Your task to perform on an android device: turn on javascript in the chrome app Image 0: 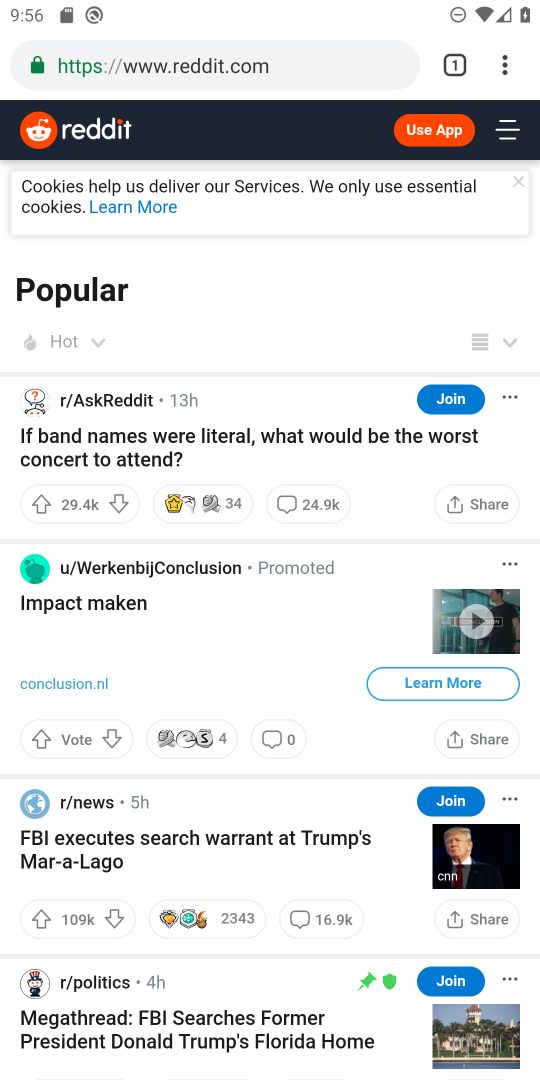
Step 0: press home button
Your task to perform on an android device: turn on javascript in the chrome app Image 1: 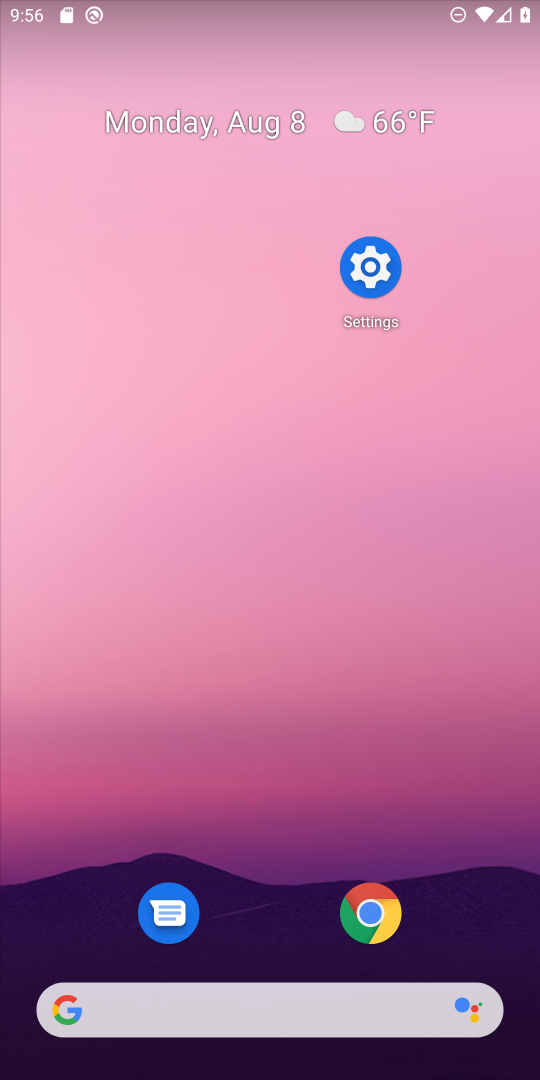
Step 1: click (369, 917)
Your task to perform on an android device: turn on javascript in the chrome app Image 2: 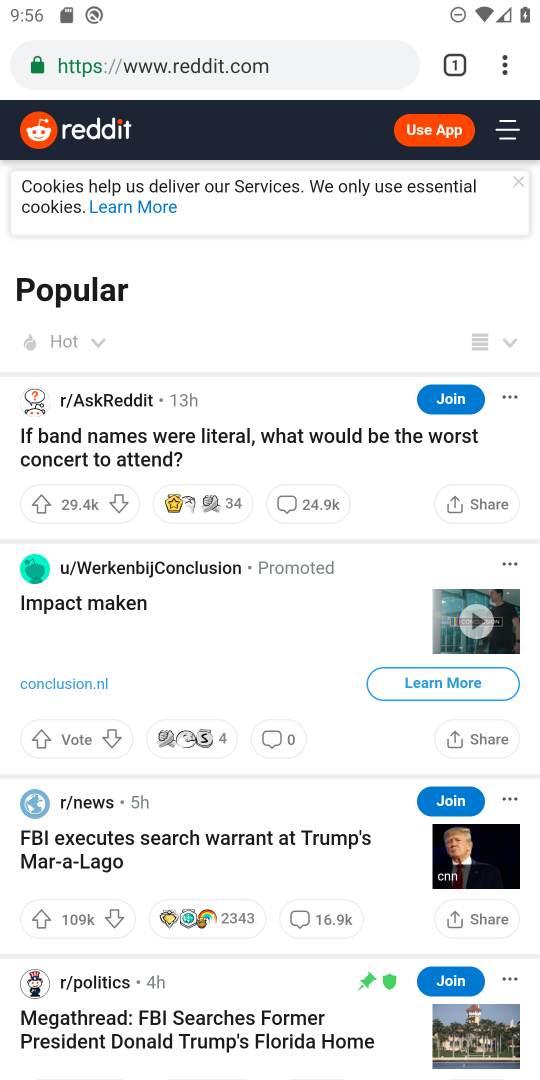
Step 2: drag from (506, 67) to (297, 863)
Your task to perform on an android device: turn on javascript in the chrome app Image 3: 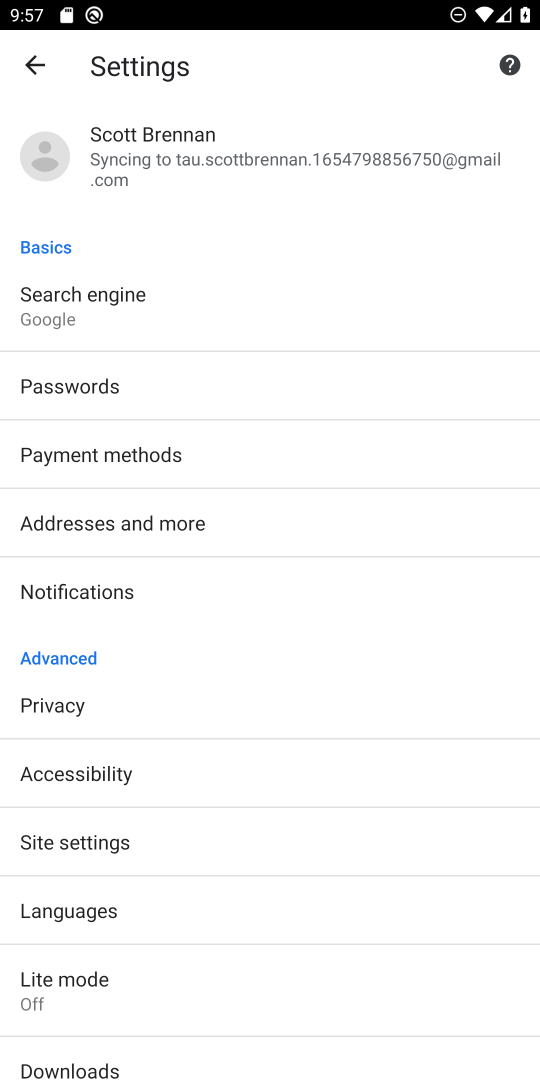
Step 3: drag from (168, 724) to (296, 544)
Your task to perform on an android device: turn on javascript in the chrome app Image 4: 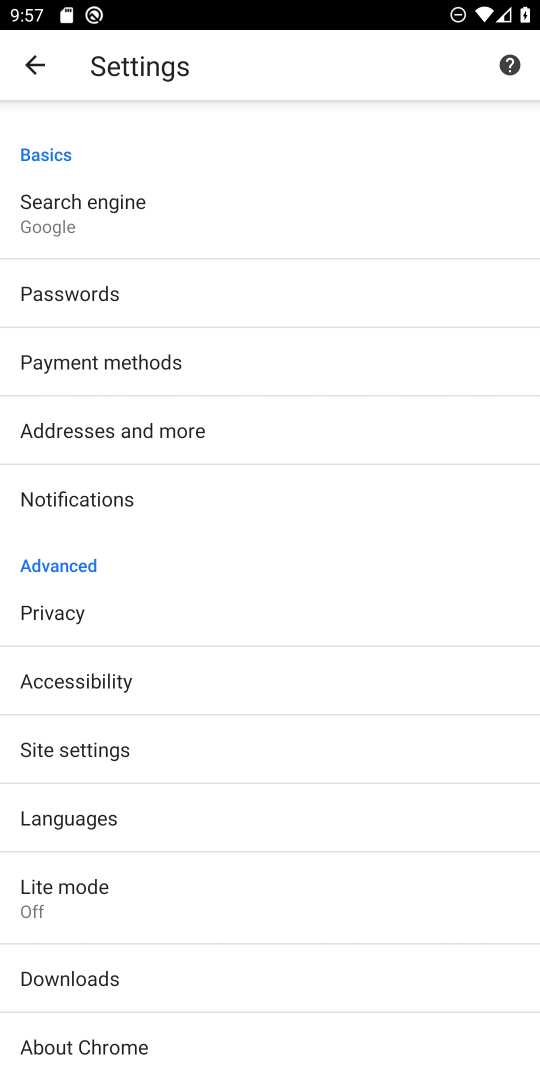
Step 4: click (62, 744)
Your task to perform on an android device: turn on javascript in the chrome app Image 5: 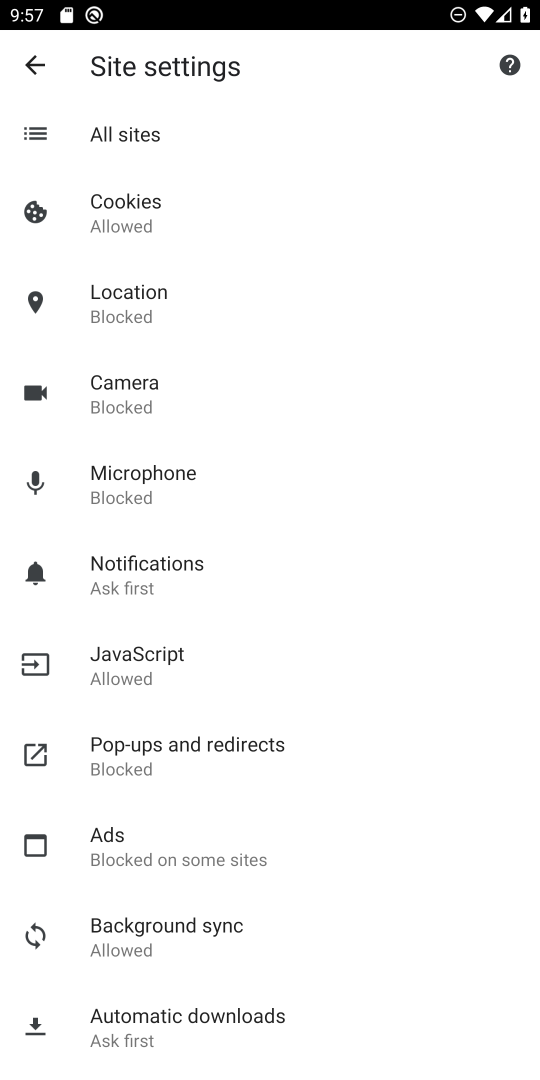
Step 5: click (130, 664)
Your task to perform on an android device: turn on javascript in the chrome app Image 6: 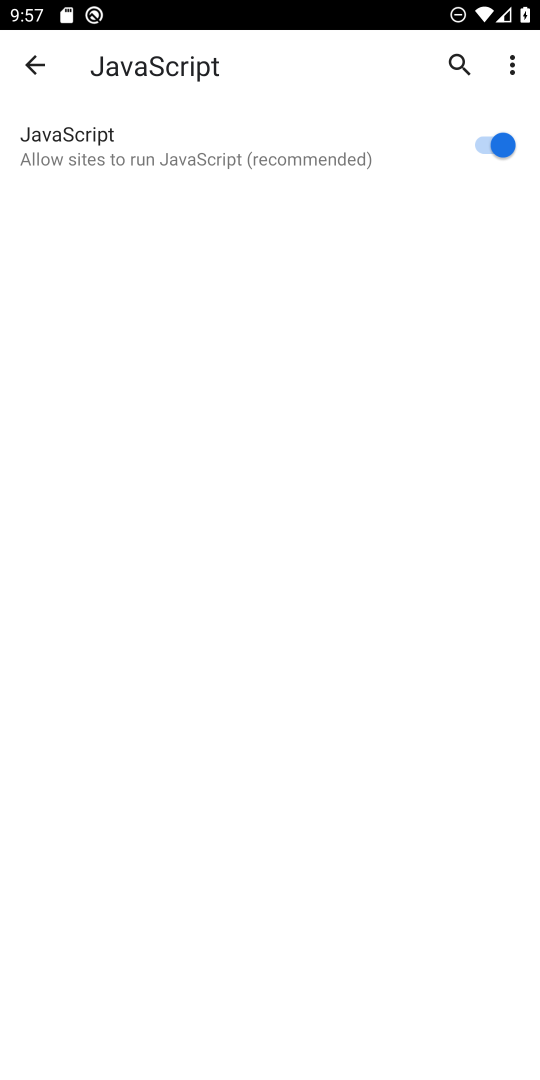
Step 6: task complete